Your task to perform on an android device: Check the news Image 0: 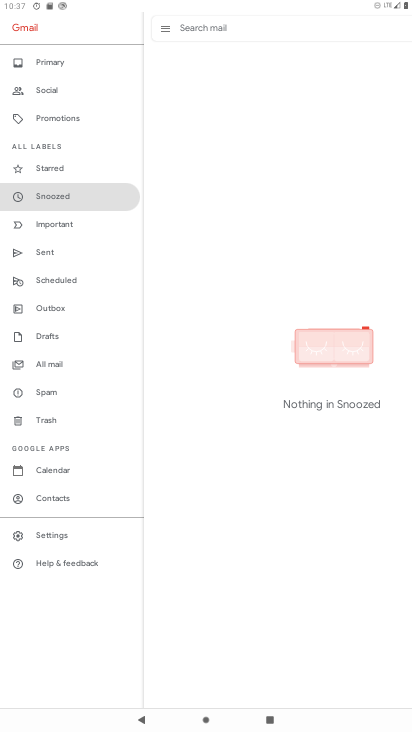
Step 0: press home button
Your task to perform on an android device: Check the news Image 1: 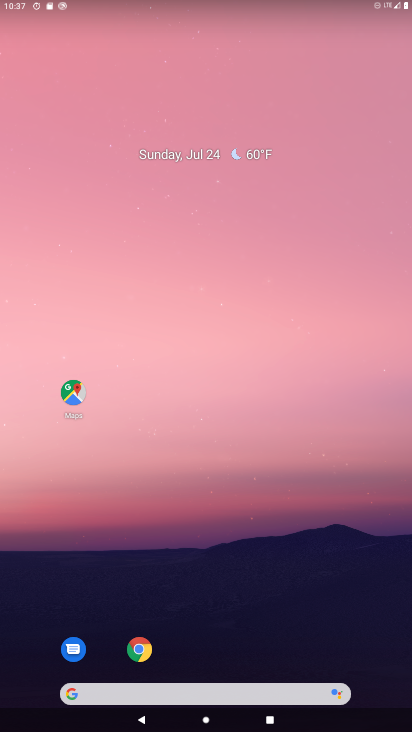
Step 1: drag from (315, 654) to (280, 9)
Your task to perform on an android device: Check the news Image 2: 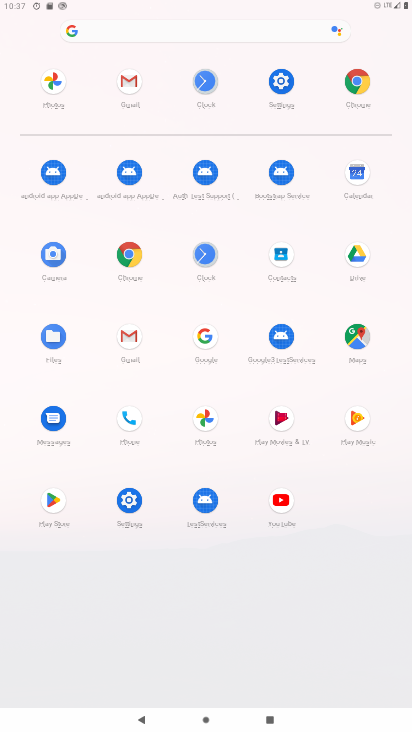
Step 2: click (122, 252)
Your task to perform on an android device: Check the news Image 3: 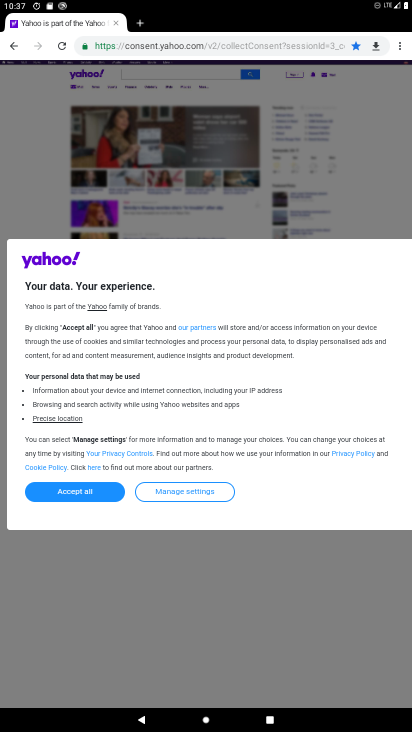
Step 3: click (231, 51)
Your task to perform on an android device: Check the news Image 4: 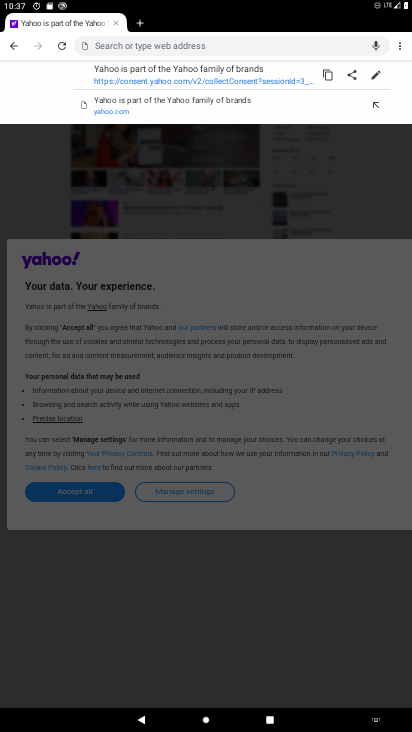
Step 4: type "news"
Your task to perform on an android device: Check the news Image 5: 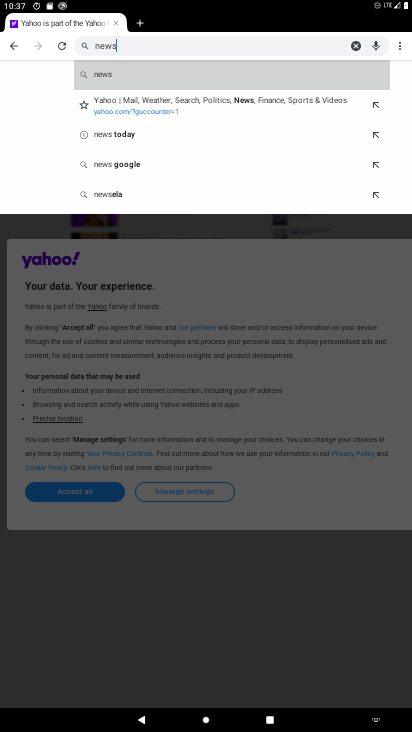
Step 5: click (116, 82)
Your task to perform on an android device: Check the news Image 6: 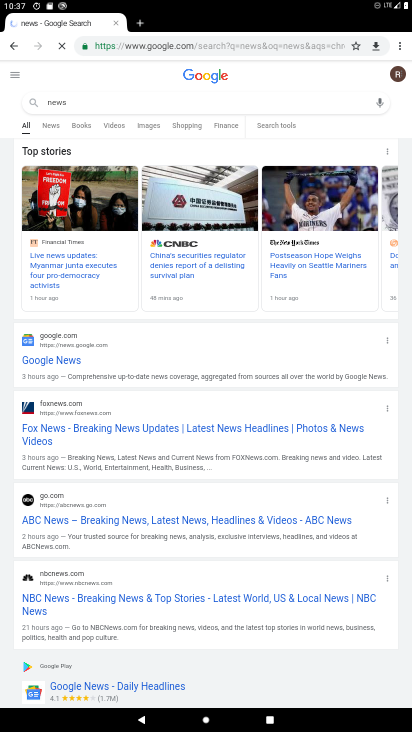
Step 6: click (74, 356)
Your task to perform on an android device: Check the news Image 7: 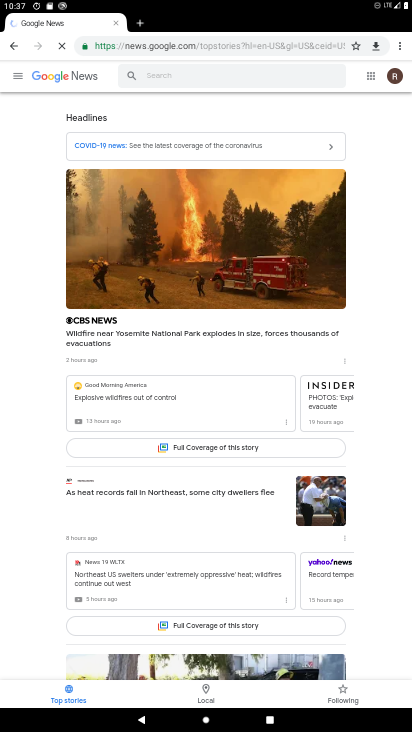
Step 7: task complete